Your task to perform on an android device: What's the weather going to be tomorrow? Image 0: 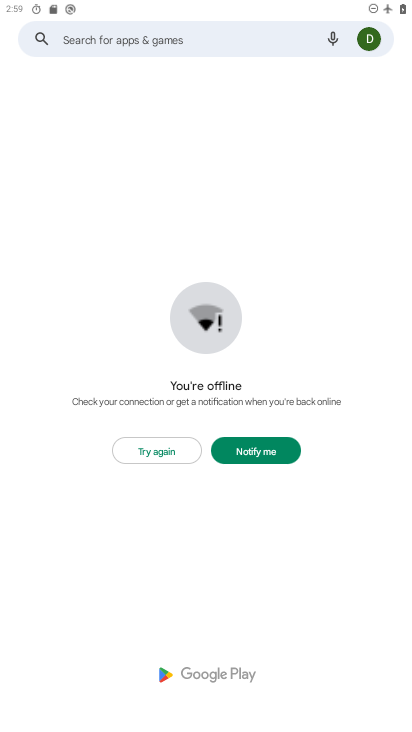
Step 0: press home button
Your task to perform on an android device: What's the weather going to be tomorrow? Image 1: 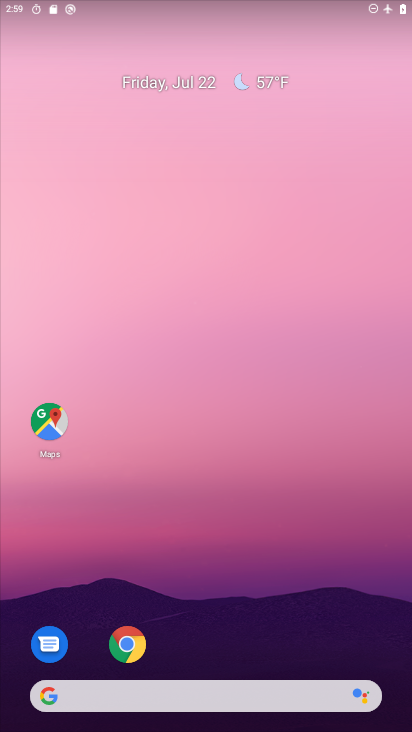
Step 1: drag from (237, 638) to (238, 250)
Your task to perform on an android device: What's the weather going to be tomorrow? Image 2: 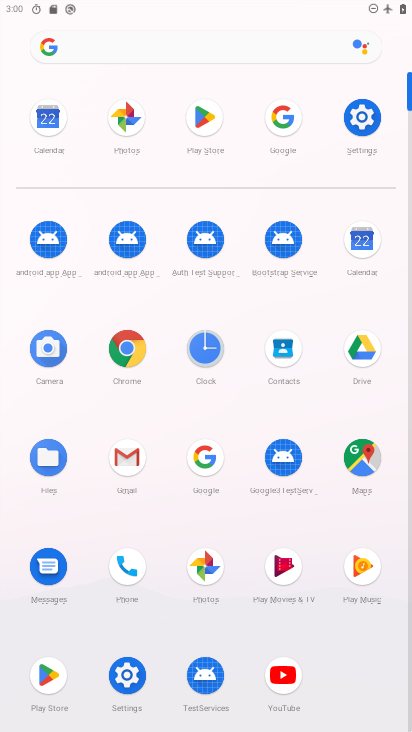
Step 2: click (290, 127)
Your task to perform on an android device: What's the weather going to be tomorrow? Image 3: 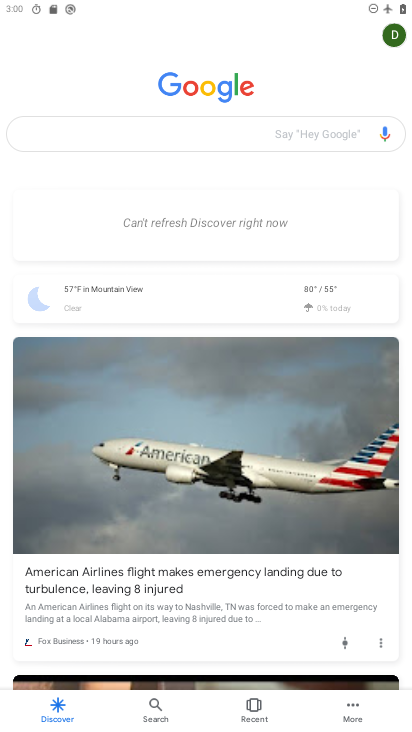
Step 3: click (174, 123)
Your task to perform on an android device: What's the weather going to be tomorrow? Image 4: 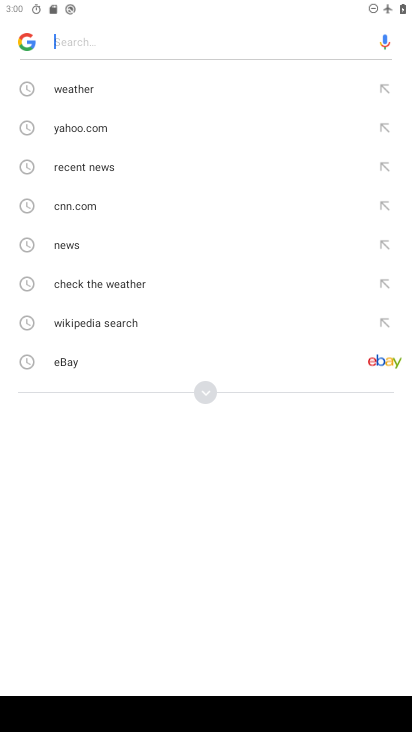
Step 4: click (104, 91)
Your task to perform on an android device: What's the weather going to be tomorrow? Image 5: 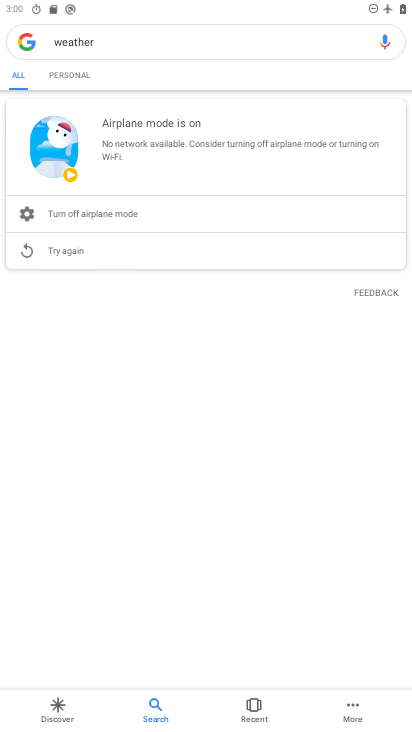
Step 5: task complete